Your task to perform on an android device: Go to Yahoo.com Image 0: 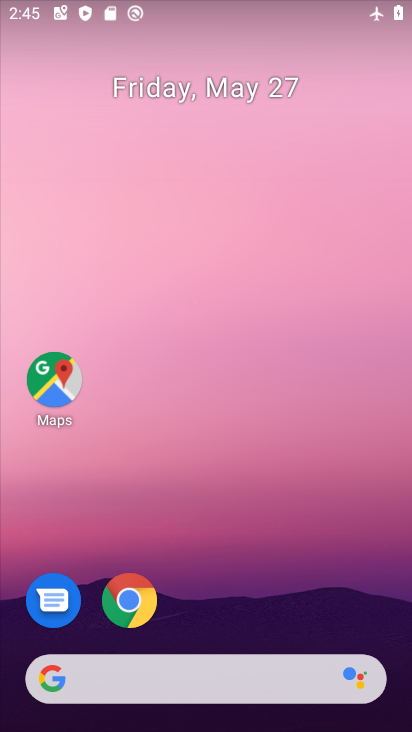
Step 0: drag from (301, 605) to (234, 133)
Your task to perform on an android device: Go to Yahoo.com Image 1: 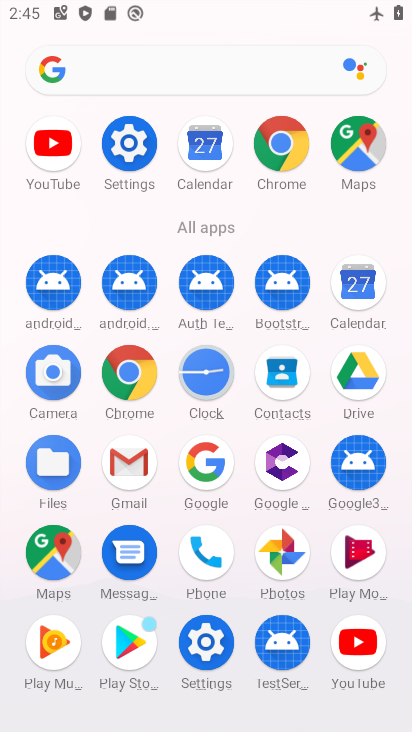
Step 1: click (132, 371)
Your task to perform on an android device: Go to Yahoo.com Image 2: 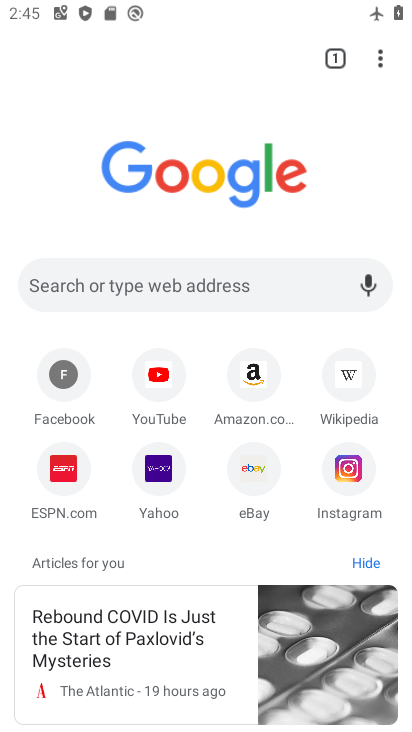
Step 2: click (168, 467)
Your task to perform on an android device: Go to Yahoo.com Image 3: 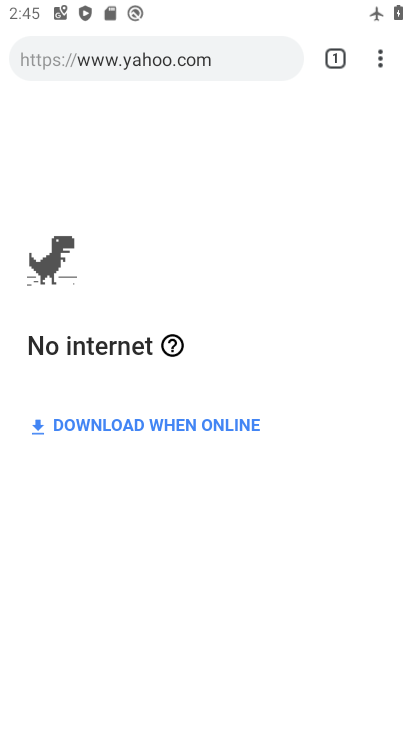
Step 3: task complete